Your task to perform on an android device: turn off picture-in-picture Image 0: 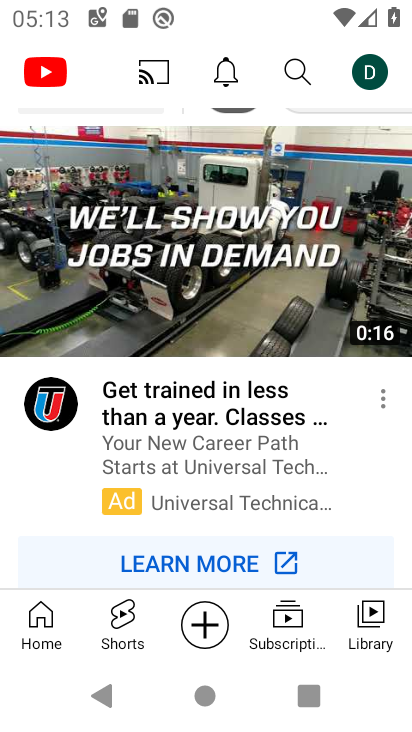
Step 0: press back button
Your task to perform on an android device: turn off picture-in-picture Image 1: 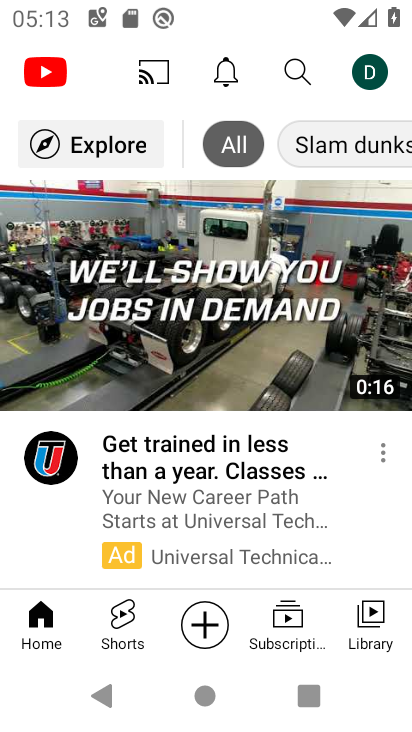
Step 1: press back button
Your task to perform on an android device: turn off picture-in-picture Image 2: 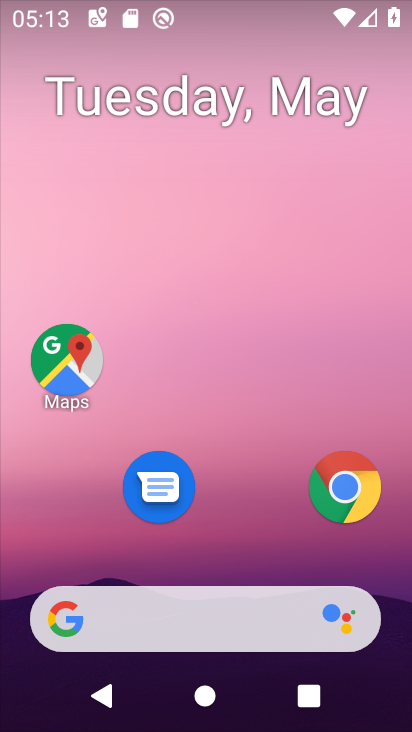
Step 2: click (324, 478)
Your task to perform on an android device: turn off picture-in-picture Image 3: 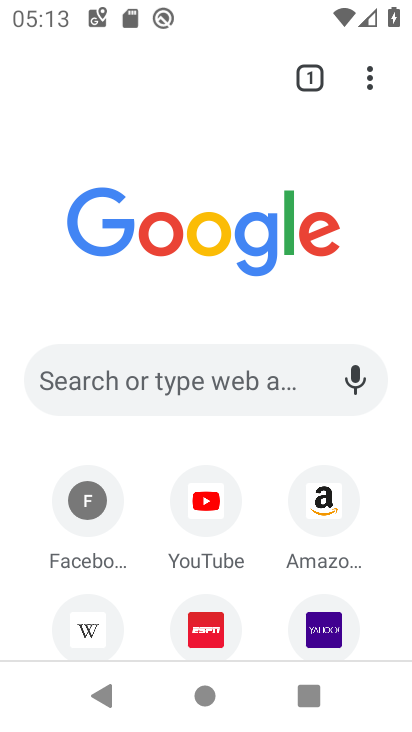
Step 3: click (375, 101)
Your task to perform on an android device: turn off picture-in-picture Image 4: 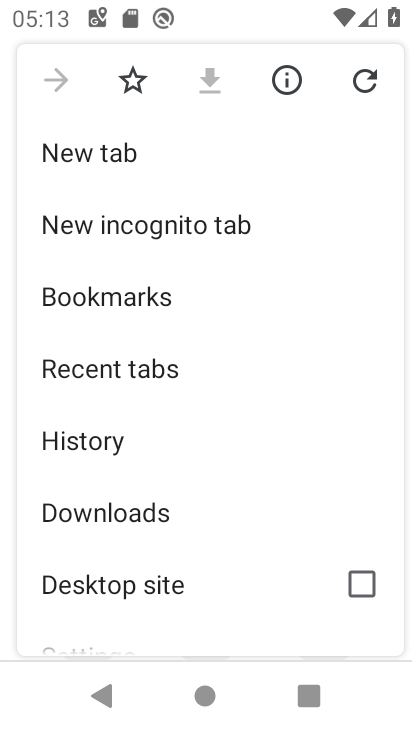
Step 4: drag from (142, 535) to (175, 299)
Your task to perform on an android device: turn off picture-in-picture Image 5: 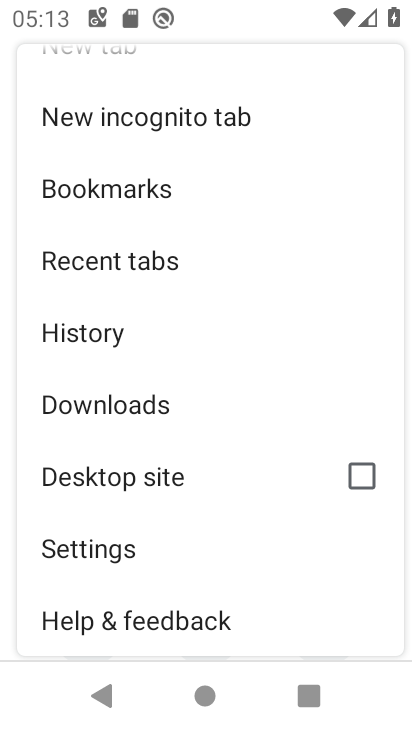
Step 5: click (127, 561)
Your task to perform on an android device: turn off picture-in-picture Image 6: 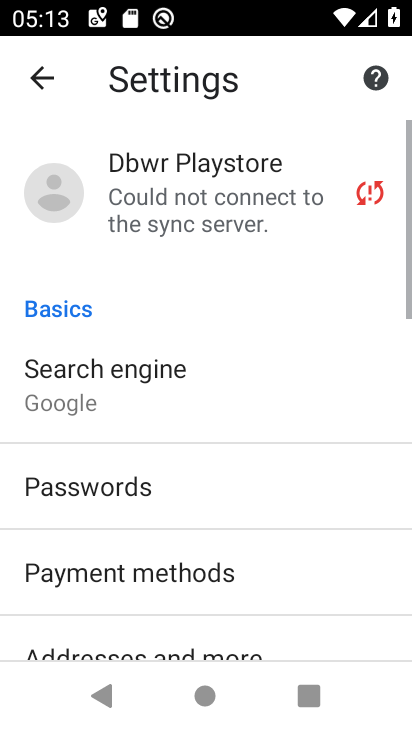
Step 6: drag from (105, 668) to (173, 266)
Your task to perform on an android device: turn off picture-in-picture Image 7: 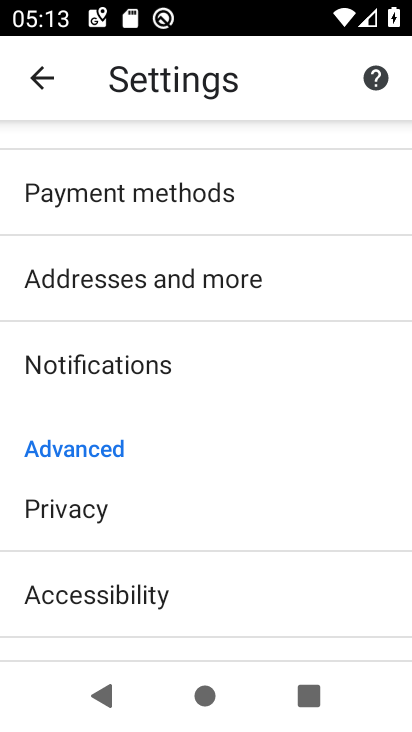
Step 7: drag from (151, 609) to (210, 229)
Your task to perform on an android device: turn off picture-in-picture Image 8: 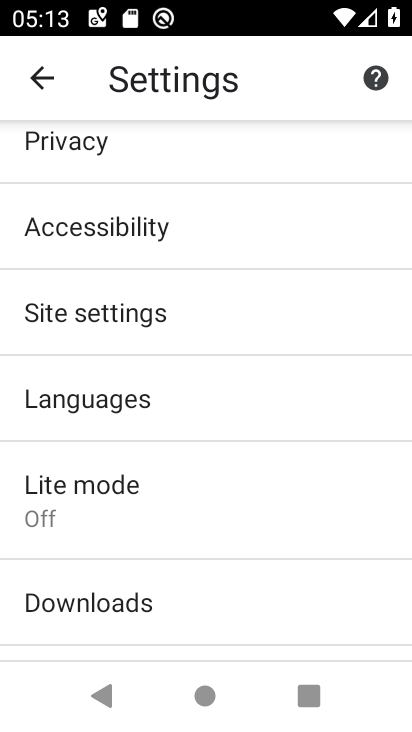
Step 8: drag from (112, 634) to (169, 308)
Your task to perform on an android device: turn off picture-in-picture Image 9: 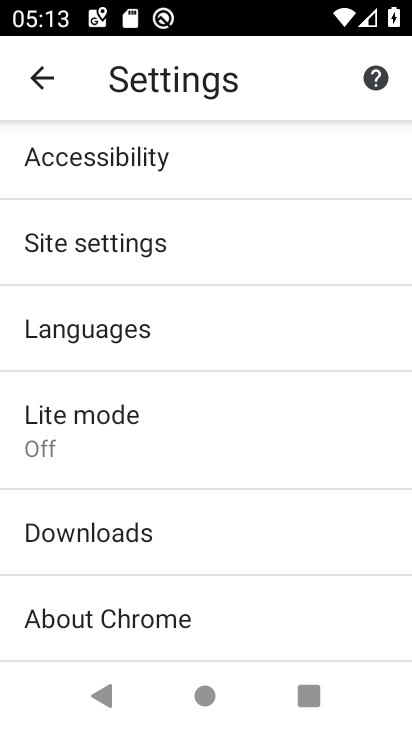
Step 9: click (165, 176)
Your task to perform on an android device: turn off picture-in-picture Image 10: 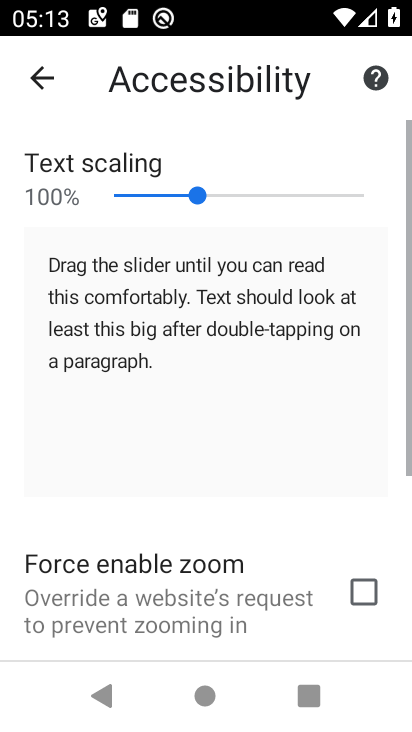
Step 10: drag from (175, 433) to (208, 130)
Your task to perform on an android device: turn off picture-in-picture Image 11: 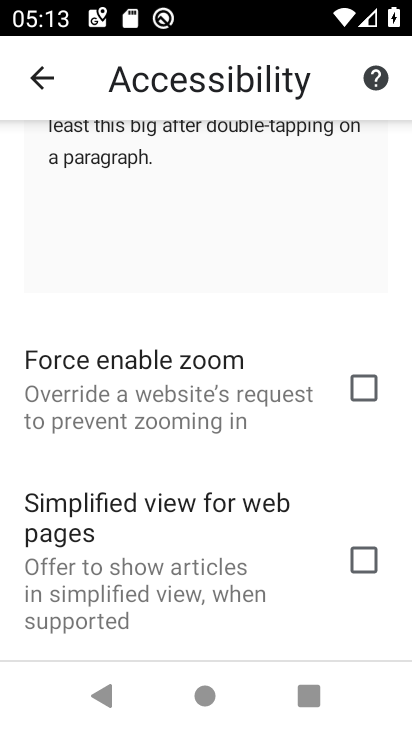
Step 11: drag from (199, 549) to (203, 234)
Your task to perform on an android device: turn off picture-in-picture Image 12: 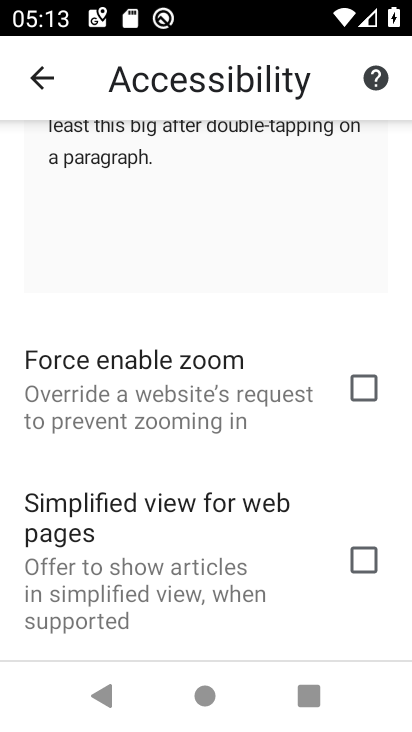
Step 12: click (40, 82)
Your task to perform on an android device: turn off picture-in-picture Image 13: 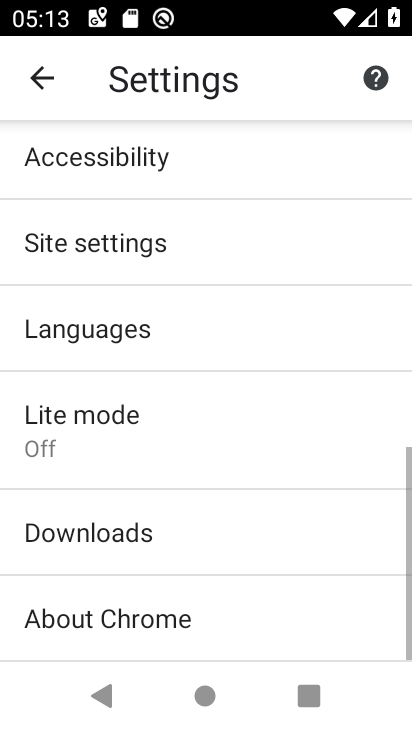
Step 13: click (98, 222)
Your task to perform on an android device: turn off picture-in-picture Image 14: 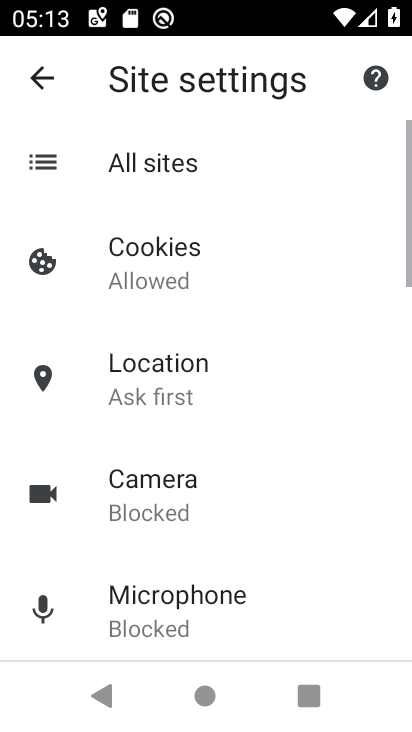
Step 14: drag from (234, 595) to (240, 154)
Your task to perform on an android device: turn off picture-in-picture Image 15: 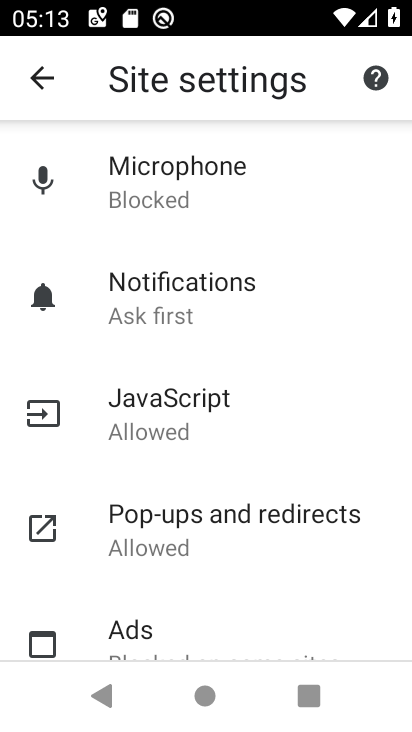
Step 15: drag from (215, 653) to (208, 267)
Your task to perform on an android device: turn off picture-in-picture Image 16: 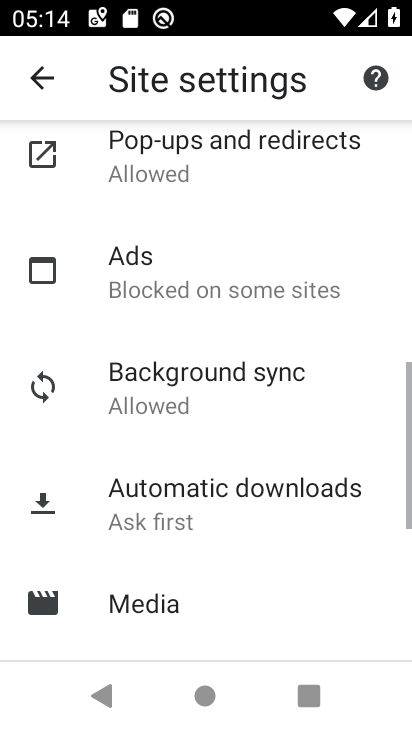
Step 16: drag from (231, 600) to (240, 199)
Your task to perform on an android device: turn off picture-in-picture Image 17: 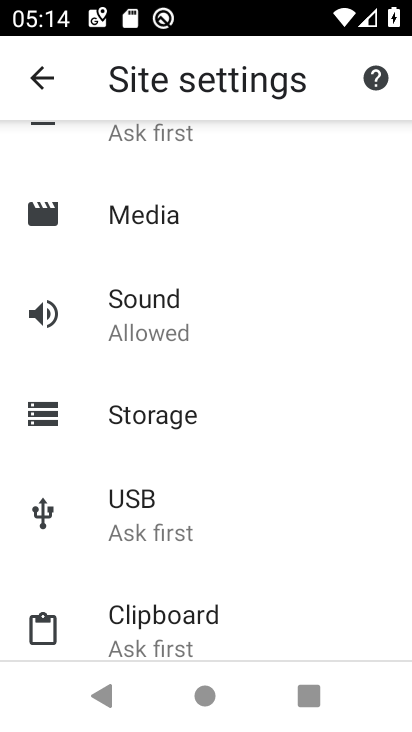
Step 17: drag from (229, 565) to (212, 350)
Your task to perform on an android device: turn off picture-in-picture Image 18: 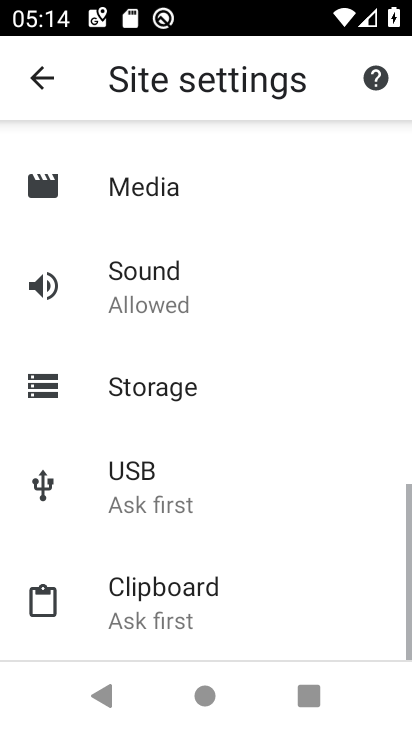
Step 18: click (122, 183)
Your task to perform on an android device: turn off picture-in-picture Image 19: 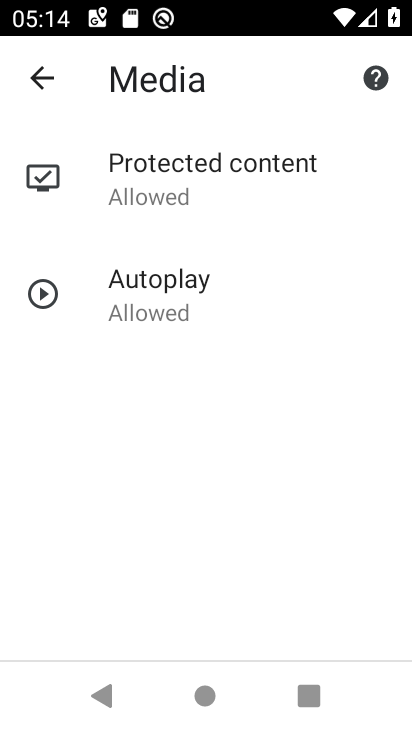
Step 19: task complete